Your task to perform on an android device: turn on notifications settings in the gmail app Image 0: 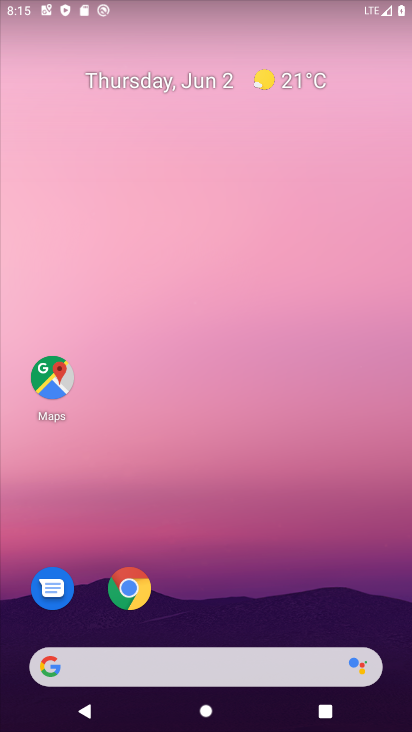
Step 0: drag from (235, 610) to (363, 122)
Your task to perform on an android device: turn on notifications settings in the gmail app Image 1: 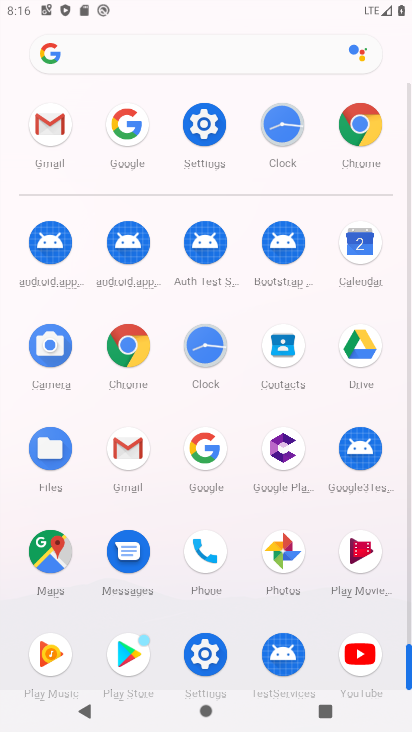
Step 1: click (130, 468)
Your task to perform on an android device: turn on notifications settings in the gmail app Image 2: 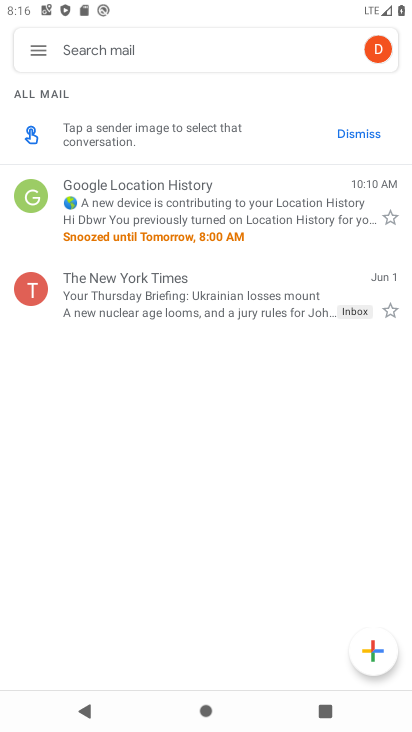
Step 2: click (37, 57)
Your task to perform on an android device: turn on notifications settings in the gmail app Image 3: 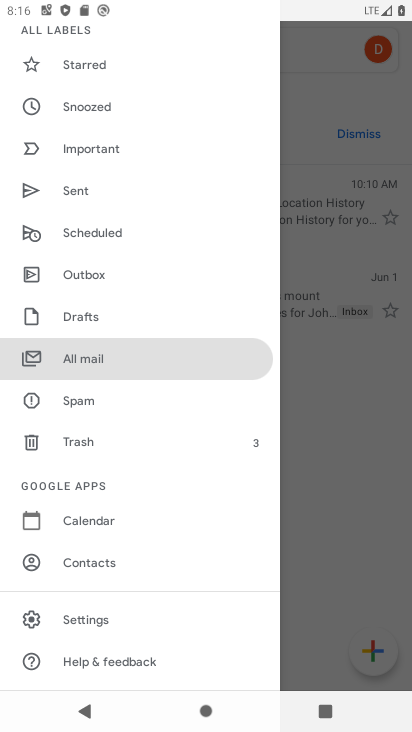
Step 3: click (95, 614)
Your task to perform on an android device: turn on notifications settings in the gmail app Image 4: 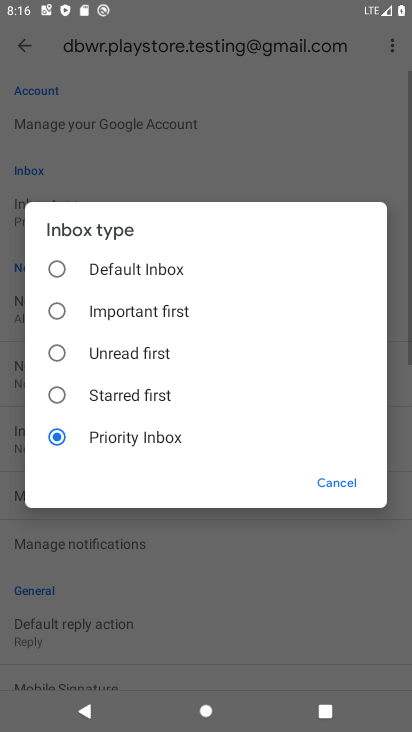
Step 4: click (286, 120)
Your task to perform on an android device: turn on notifications settings in the gmail app Image 5: 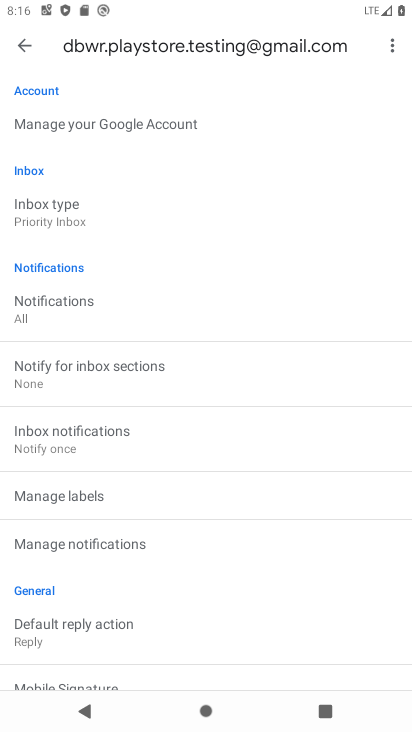
Step 5: click (15, 37)
Your task to perform on an android device: turn on notifications settings in the gmail app Image 6: 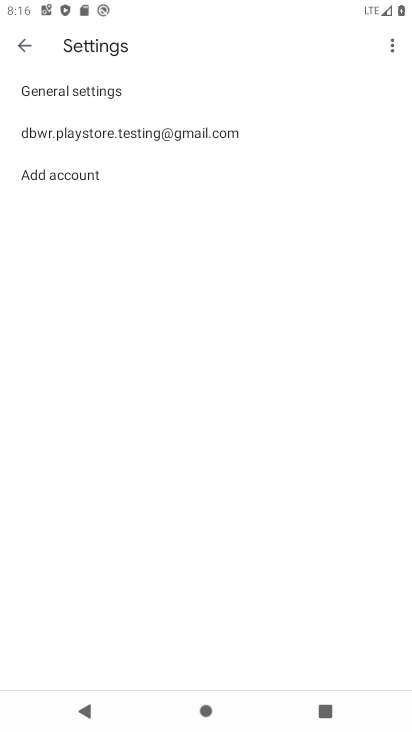
Step 6: click (139, 102)
Your task to perform on an android device: turn on notifications settings in the gmail app Image 7: 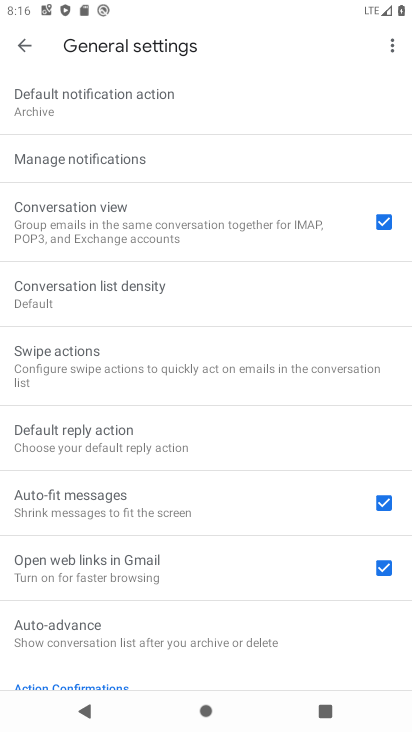
Step 7: click (133, 151)
Your task to perform on an android device: turn on notifications settings in the gmail app Image 8: 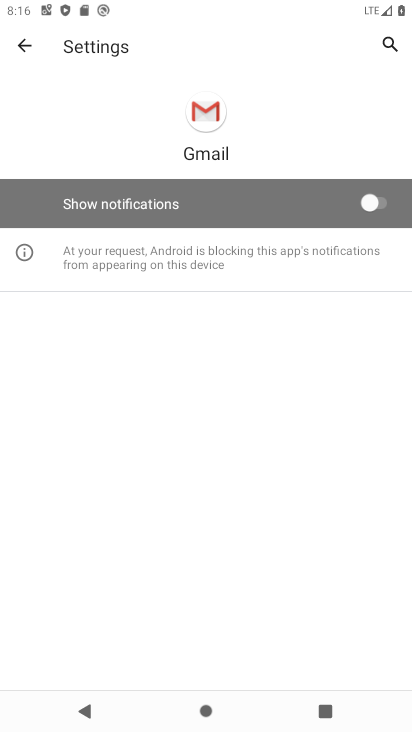
Step 8: click (379, 207)
Your task to perform on an android device: turn on notifications settings in the gmail app Image 9: 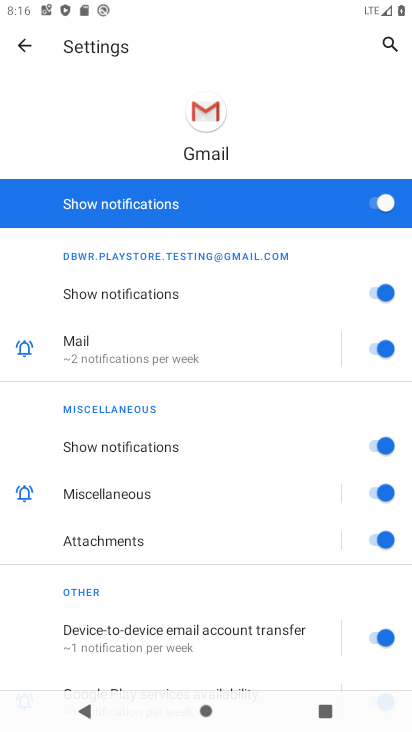
Step 9: task complete